Your task to perform on an android device: Open accessibility settings Image 0: 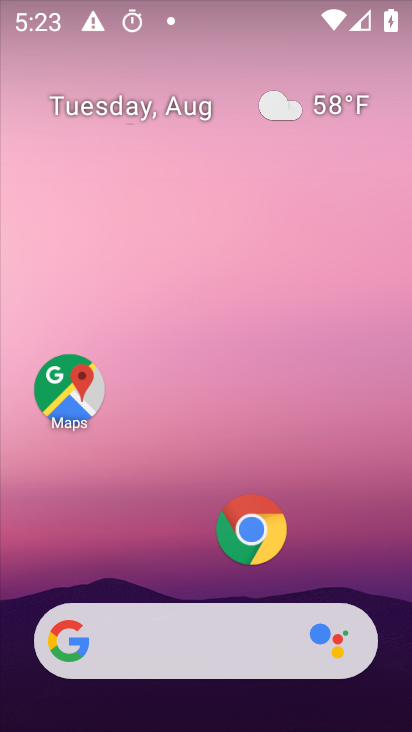
Step 0: drag from (174, 390) to (215, 137)
Your task to perform on an android device: Open accessibility settings Image 1: 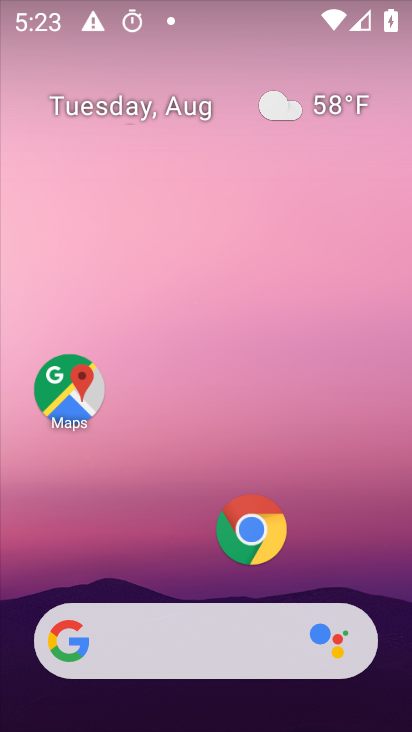
Step 1: drag from (187, 544) to (264, 116)
Your task to perform on an android device: Open accessibility settings Image 2: 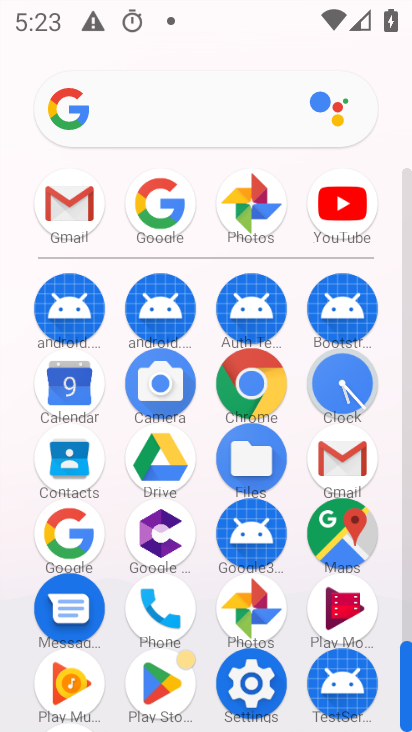
Step 2: drag from (203, 540) to (224, 318)
Your task to perform on an android device: Open accessibility settings Image 3: 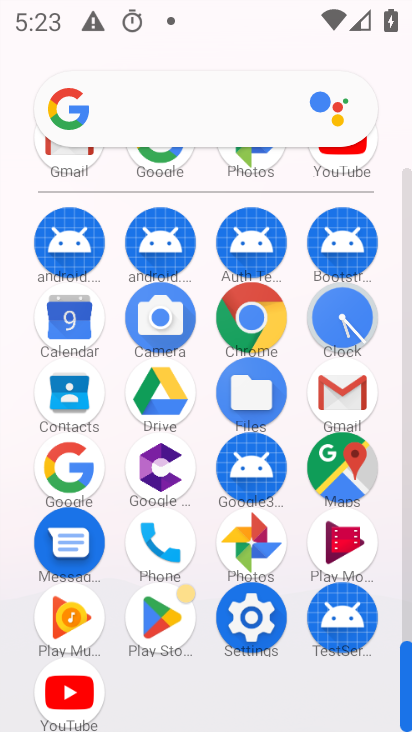
Step 3: click (263, 641)
Your task to perform on an android device: Open accessibility settings Image 4: 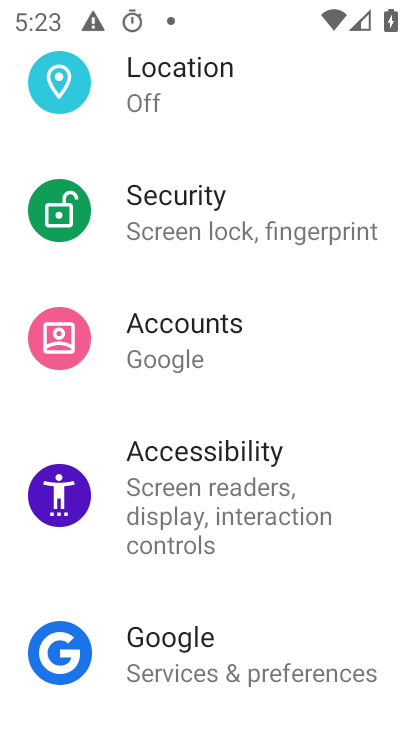
Step 4: click (252, 441)
Your task to perform on an android device: Open accessibility settings Image 5: 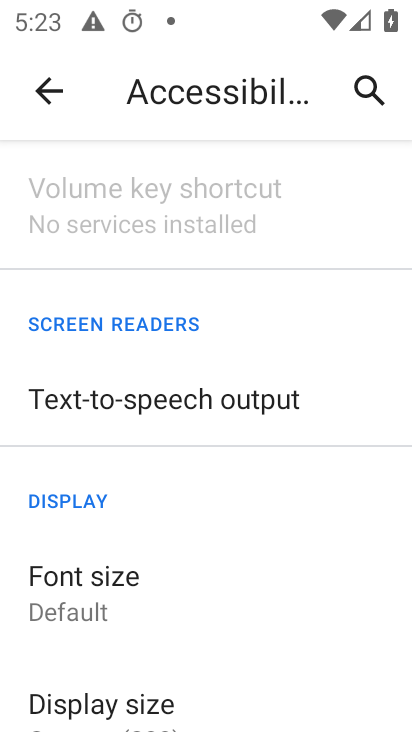
Step 5: task complete